Your task to perform on an android device: Open network settings Image 0: 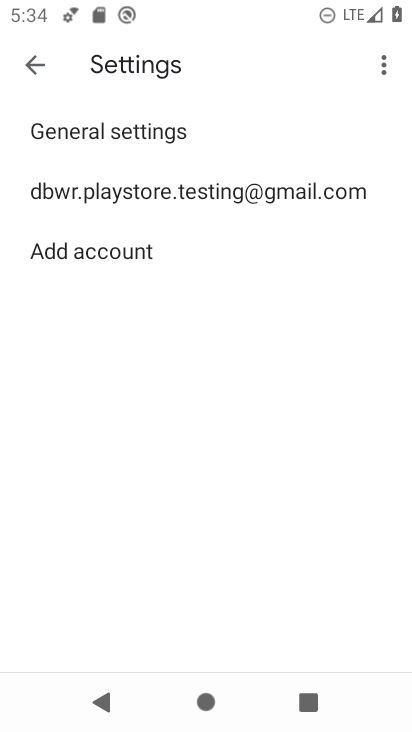
Step 0: press home button
Your task to perform on an android device: Open network settings Image 1: 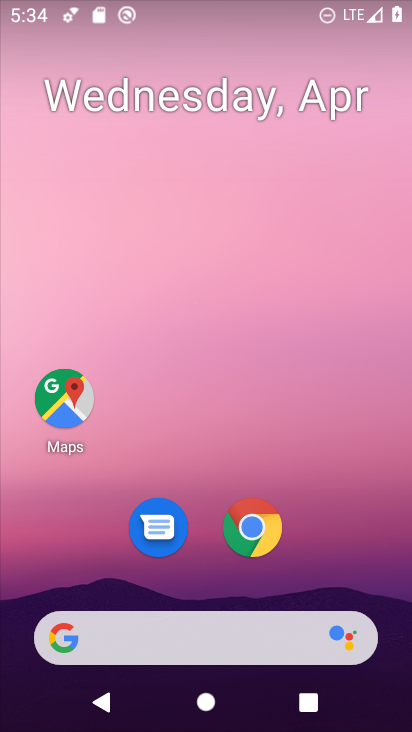
Step 1: drag from (346, 517) to (295, 12)
Your task to perform on an android device: Open network settings Image 2: 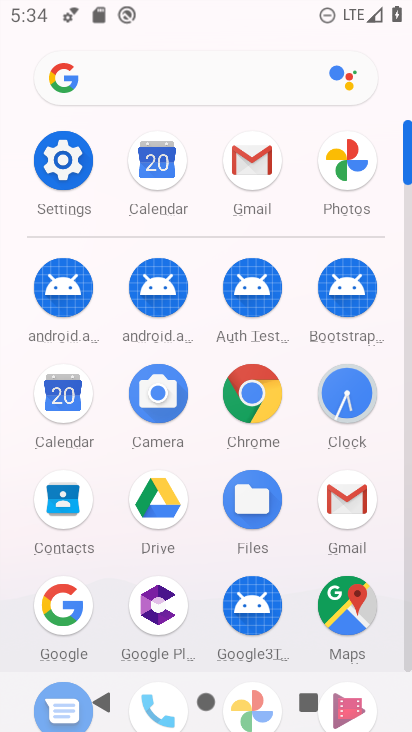
Step 2: click (70, 167)
Your task to perform on an android device: Open network settings Image 3: 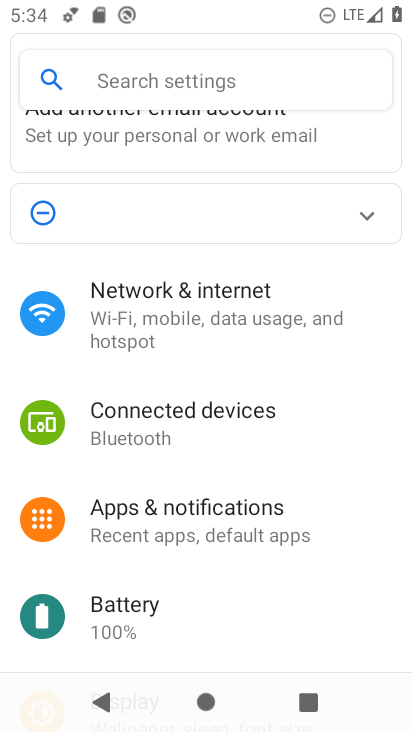
Step 3: click (174, 316)
Your task to perform on an android device: Open network settings Image 4: 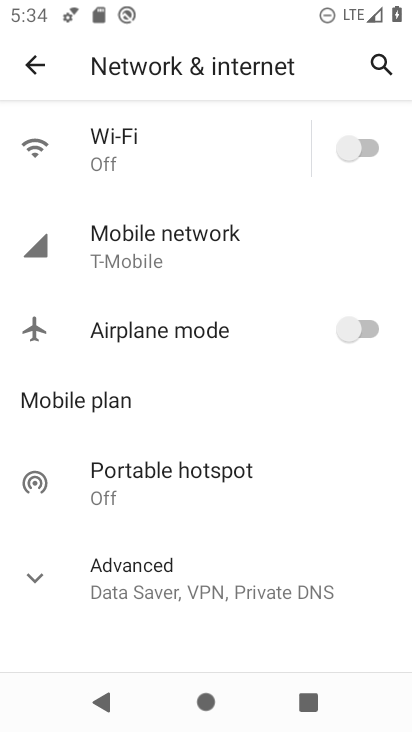
Step 4: click (29, 584)
Your task to perform on an android device: Open network settings Image 5: 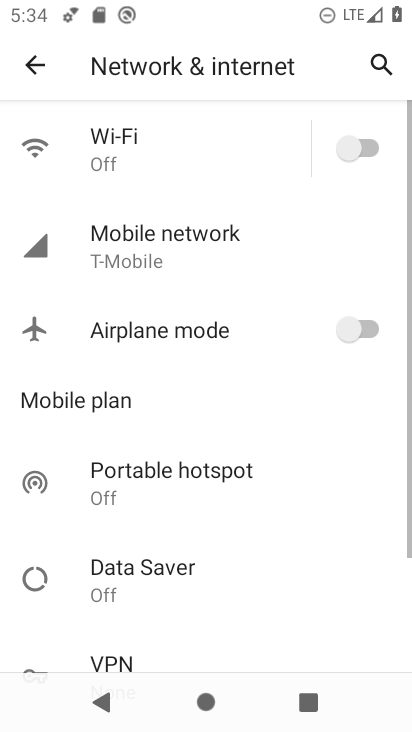
Step 5: drag from (243, 546) to (253, 389)
Your task to perform on an android device: Open network settings Image 6: 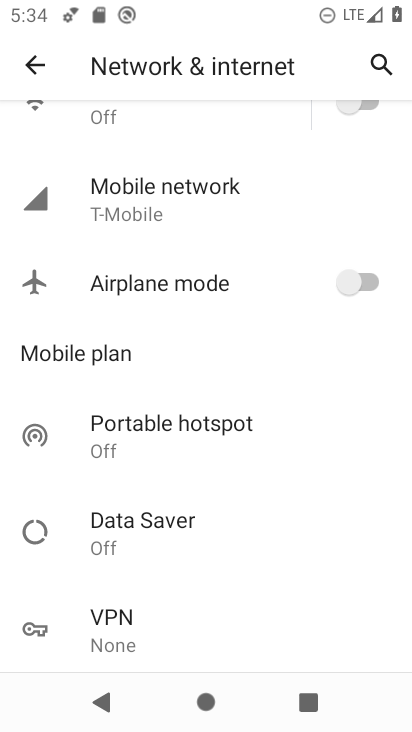
Step 6: click (127, 203)
Your task to perform on an android device: Open network settings Image 7: 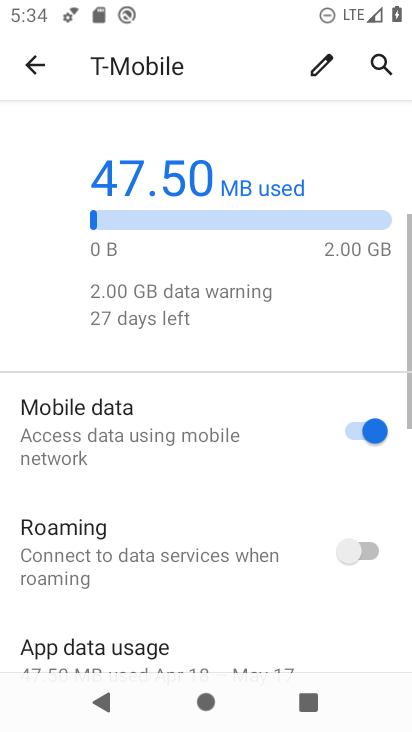
Step 7: drag from (188, 527) to (195, 165)
Your task to perform on an android device: Open network settings Image 8: 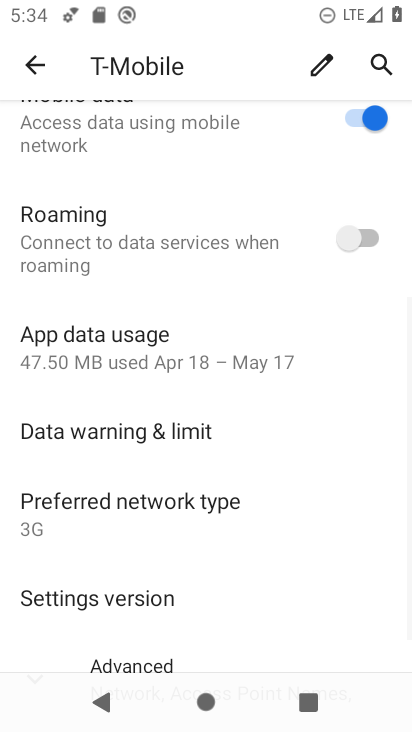
Step 8: drag from (196, 499) to (203, 184)
Your task to perform on an android device: Open network settings Image 9: 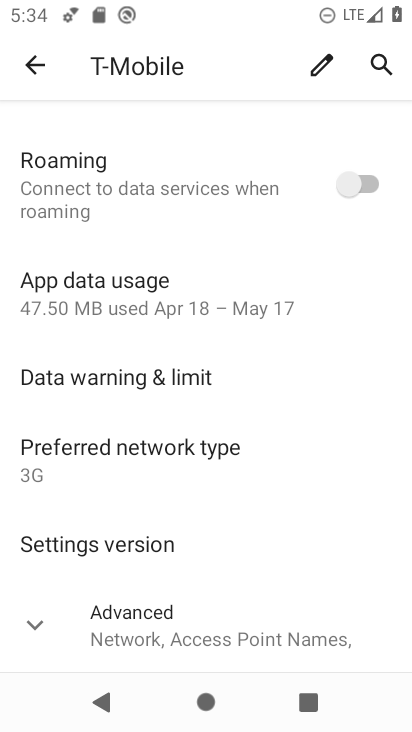
Step 9: click (39, 632)
Your task to perform on an android device: Open network settings Image 10: 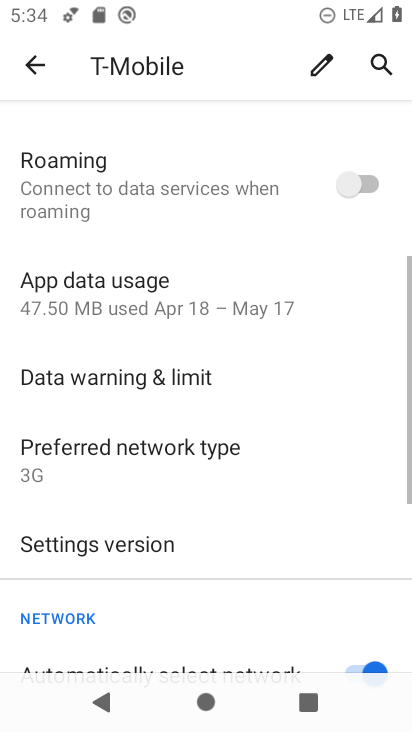
Step 10: task complete